Your task to perform on an android device: Search for "usb-c to usb-a" on target.com, select the first entry, and add it to the cart. Image 0: 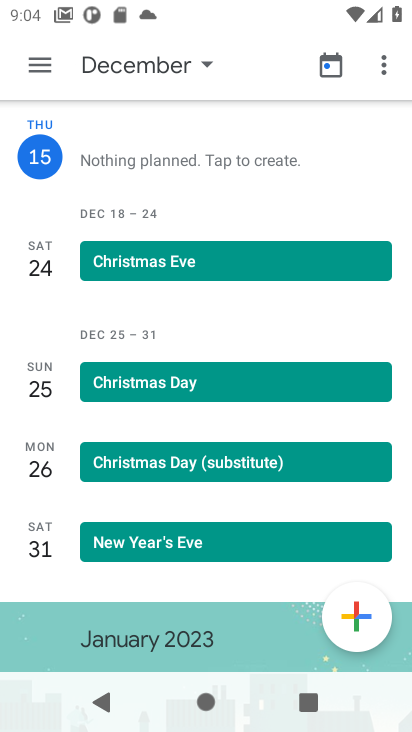
Step 0: press home button
Your task to perform on an android device: Search for "usb-c to usb-a" on target.com, select the first entry, and add it to the cart. Image 1: 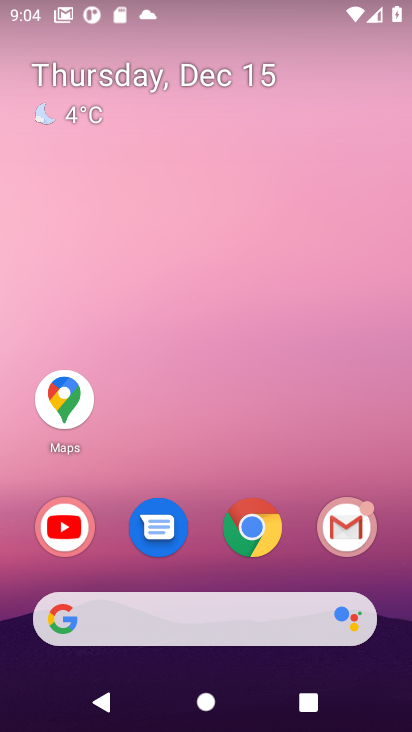
Step 1: click (240, 512)
Your task to perform on an android device: Search for "usb-c to usb-a" on target.com, select the first entry, and add it to the cart. Image 2: 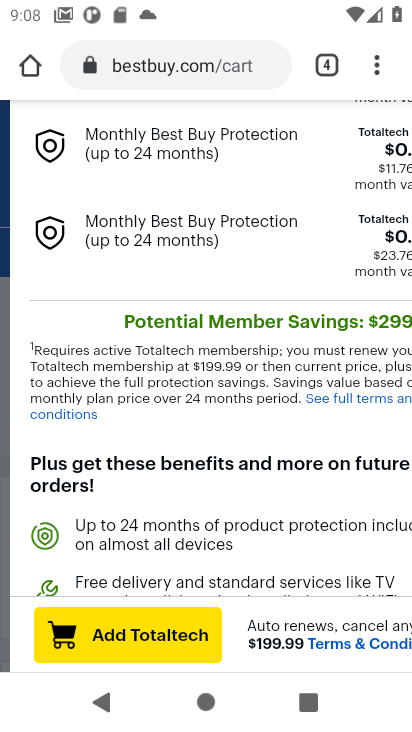
Step 2: task complete